Your task to perform on an android device: Go to eBay Image 0: 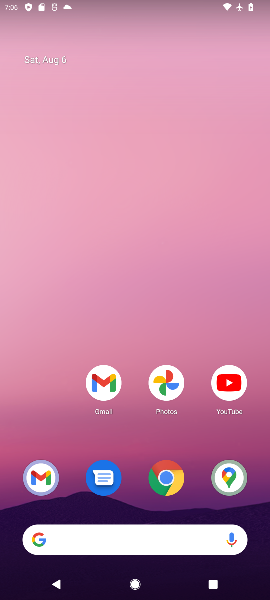
Step 0: press home button
Your task to perform on an android device: Go to eBay Image 1: 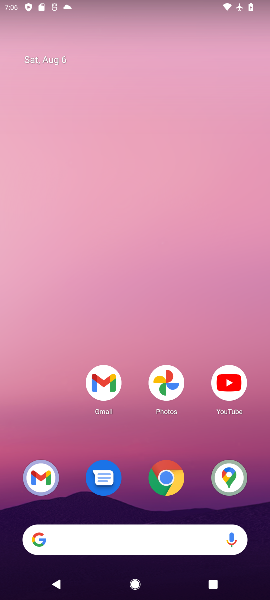
Step 1: click (38, 540)
Your task to perform on an android device: Go to eBay Image 2: 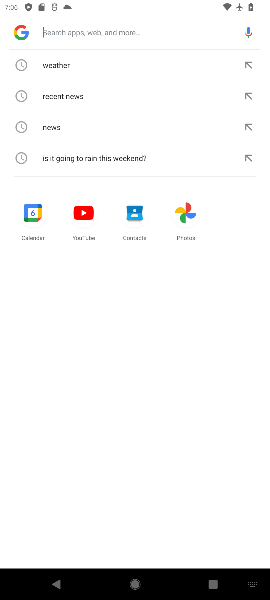
Step 2: type "eBay"
Your task to perform on an android device: Go to eBay Image 3: 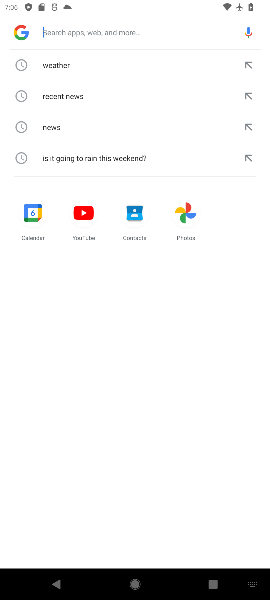
Step 3: click (47, 33)
Your task to perform on an android device: Go to eBay Image 4: 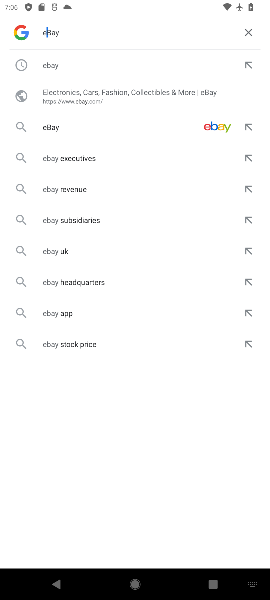
Step 4: press enter
Your task to perform on an android device: Go to eBay Image 5: 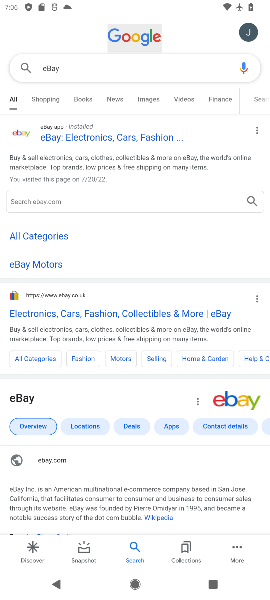
Step 5: click (19, 299)
Your task to perform on an android device: Go to eBay Image 6: 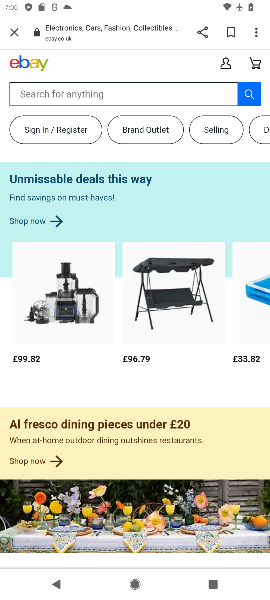
Step 6: task complete